Your task to perform on an android device: all mails in gmail Image 0: 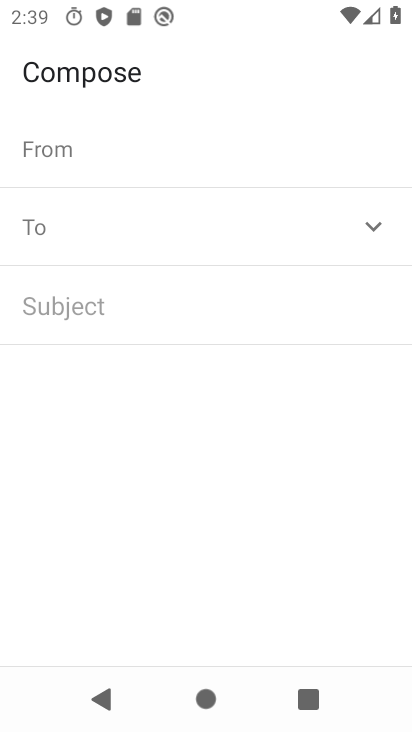
Step 0: drag from (288, 594) to (336, 192)
Your task to perform on an android device: all mails in gmail Image 1: 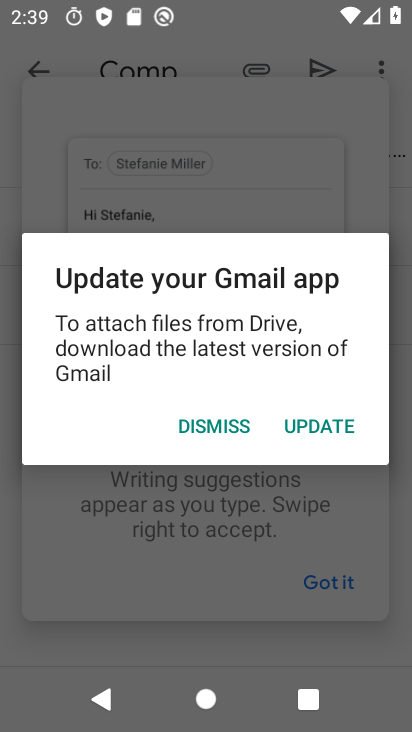
Step 1: press home button
Your task to perform on an android device: all mails in gmail Image 2: 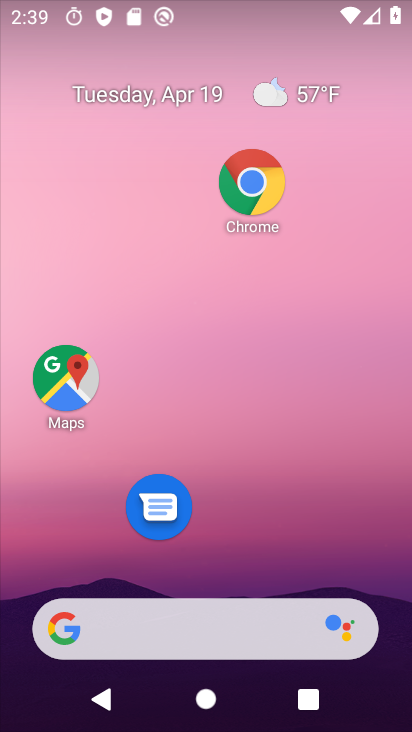
Step 2: drag from (286, 604) to (304, 224)
Your task to perform on an android device: all mails in gmail Image 3: 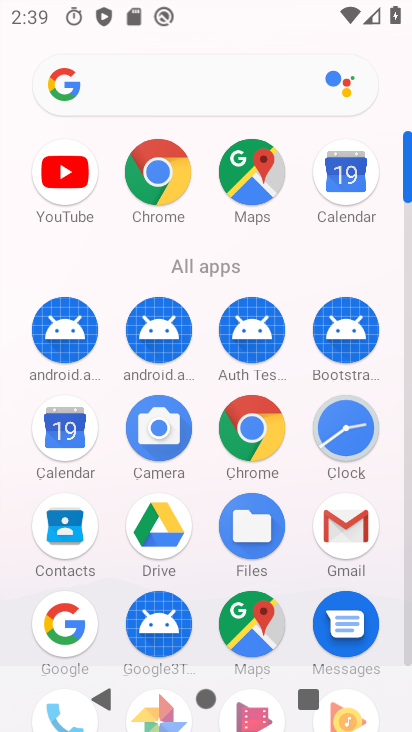
Step 3: click (353, 535)
Your task to perform on an android device: all mails in gmail Image 4: 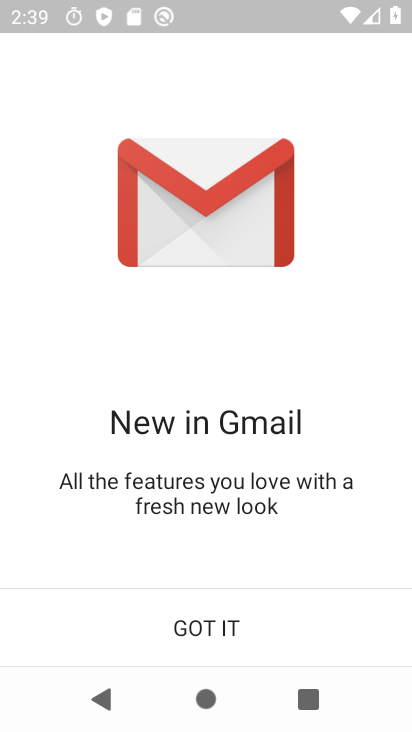
Step 4: click (240, 625)
Your task to perform on an android device: all mails in gmail Image 5: 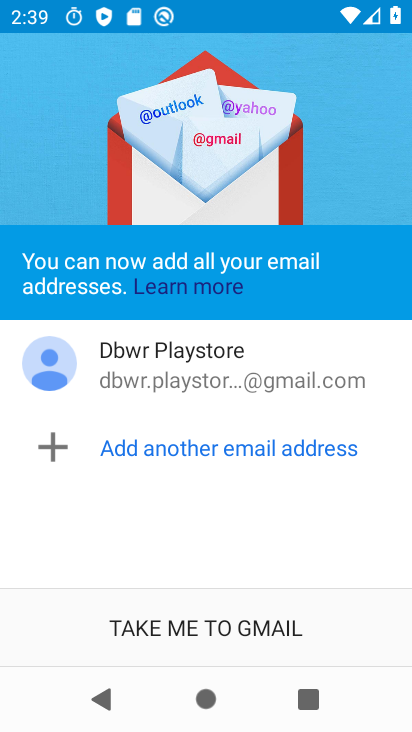
Step 5: click (221, 641)
Your task to perform on an android device: all mails in gmail Image 6: 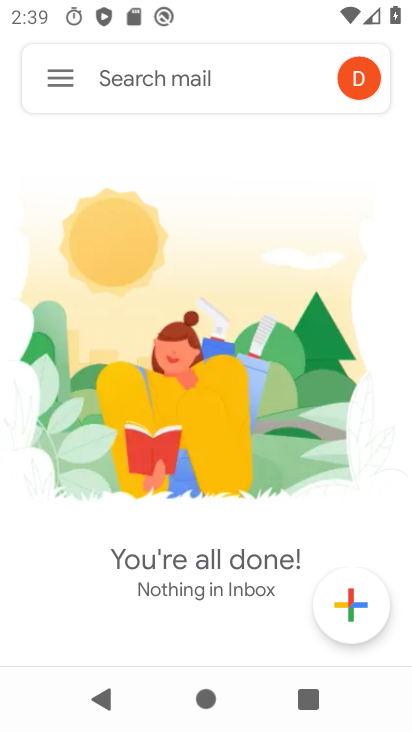
Step 6: click (51, 80)
Your task to perform on an android device: all mails in gmail Image 7: 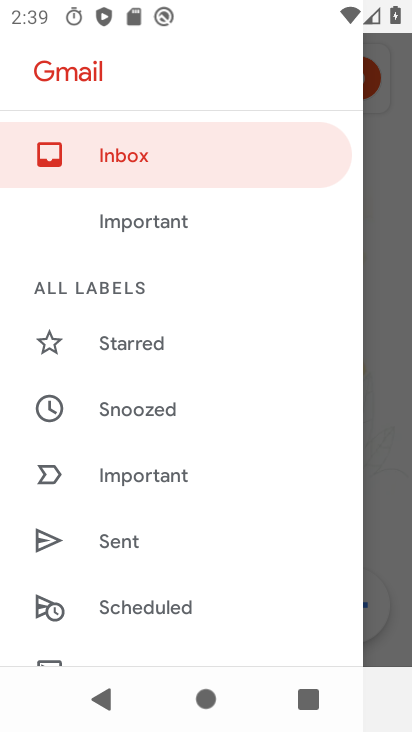
Step 7: drag from (170, 501) to (206, 232)
Your task to perform on an android device: all mails in gmail Image 8: 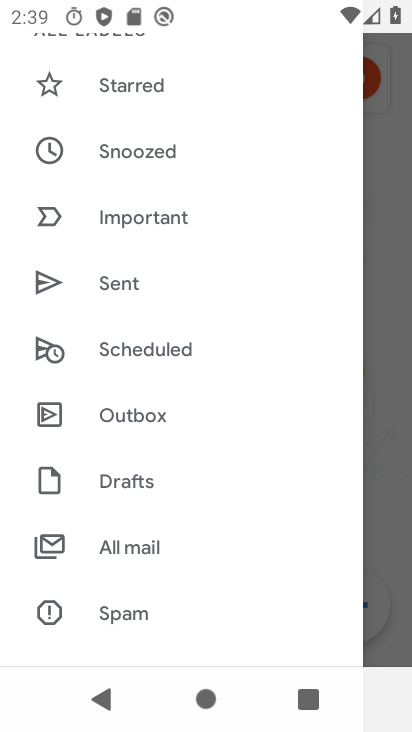
Step 8: click (194, 543)
Your task to perform on an android device: all mails in gmail Image 9: 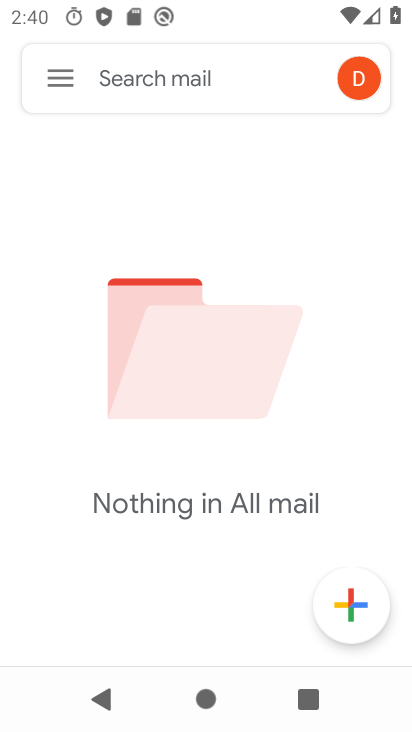
Step 9: task complete